Your task to perform on an android device: Open settings on Google Maps Image 0: 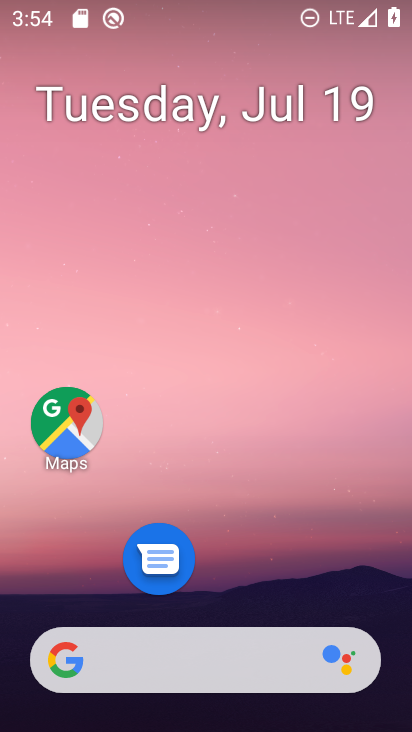
Step 0: drag from (200, 669) to (246, 300)
Your task to perform on an android device: Open settings on Google Maps Image 1: 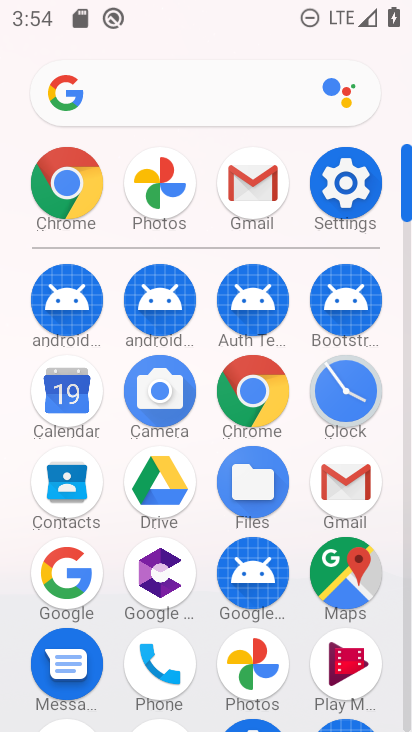
Step 1: click (351, 592)
Your task to perform on an android device: Open settings on Google Maps Image 2: 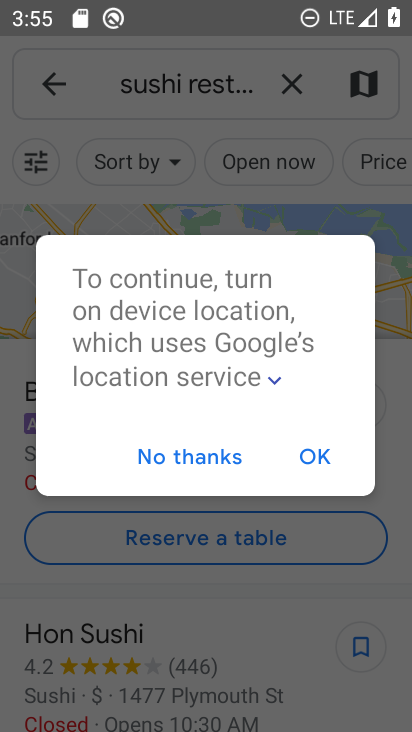
Step 2: click (323, 465)
Your task to perform on an android device: Open settings on Google Maps Image 3: 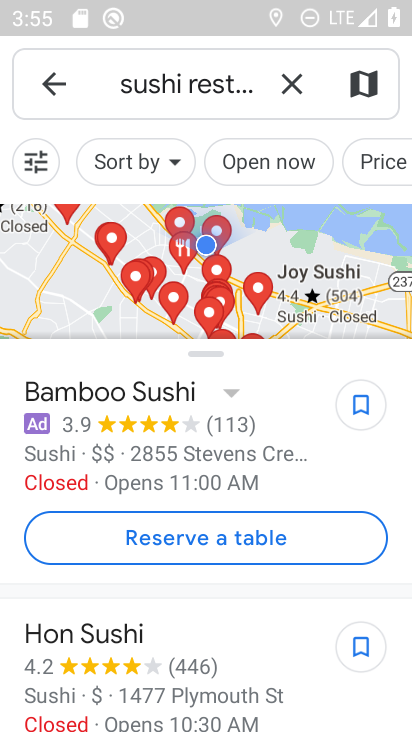
Step 3: click (52, 89)
Your task to perform on an android device: Open settings on Google Maps Image 4: 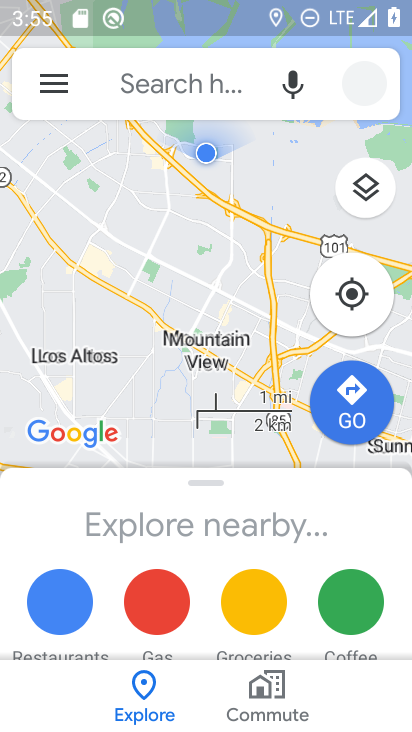
Step 4: click (52, 89)
Your task to perform on an android device: Open settings on Google Maps Image 5: 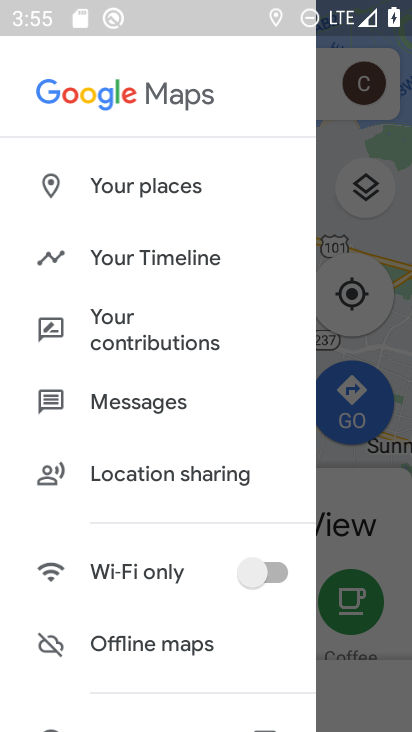
Step 5: drag from (136, 538) to (152, 261)
Your task to perform on an android device: Open settings on Google Maps Image 6: 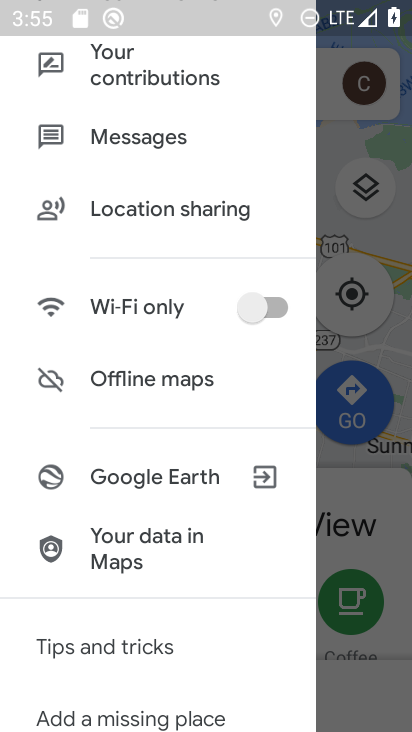
Step 6: drag from (116, 496) to (116, 297)
Your task to perform on an android device: Open settings on Google Maps Image 7: 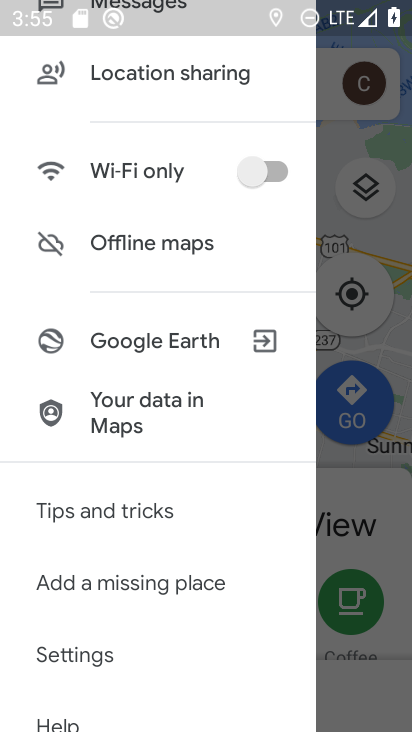
Step 7: click (107, 660)
Your task to perform on an android device: Open settings on Google Maps Image 8: 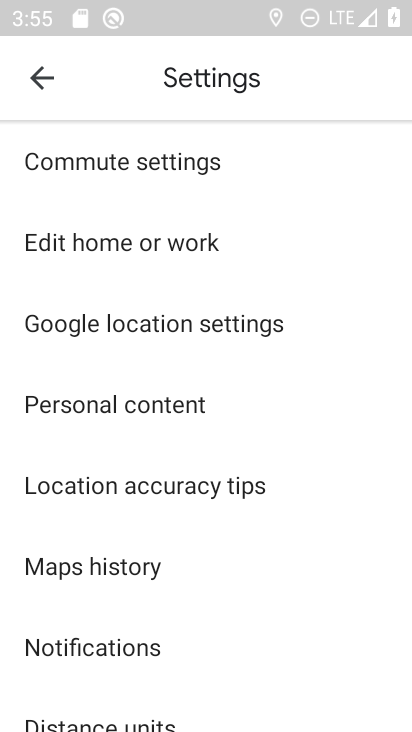
Step 8: task complete